Your task to perform on an android device: How much does a 3 bedroom apartment rent for in Miami? Image 0: 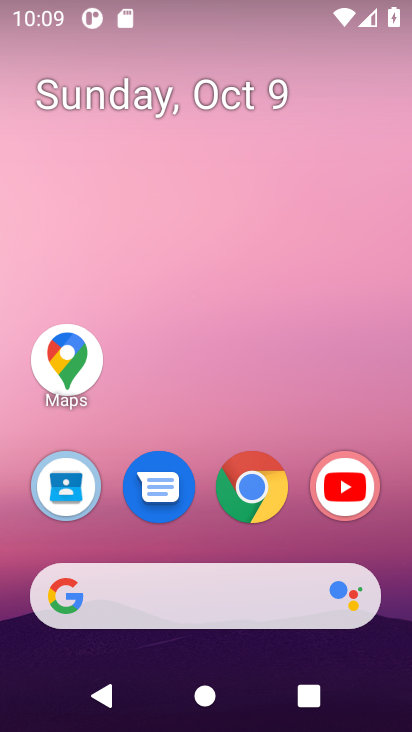
Step 0: click (248, 486)
Your task to perform on an android device: How much does a 3 bedroom apartment rent for in Miami? Image 1: 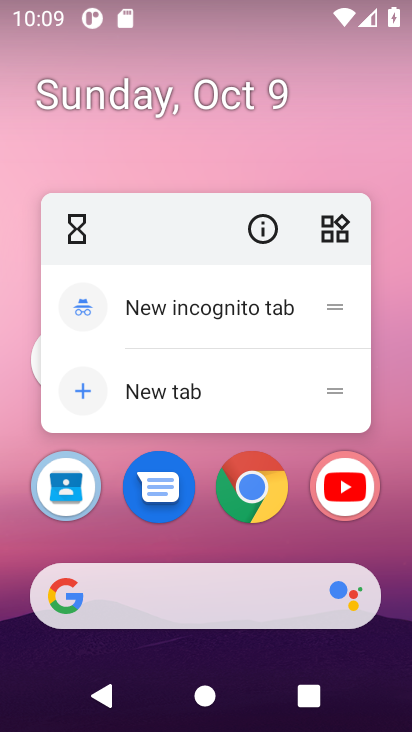
Step 1: click (266, 504)
Your task to perform on an android device: How much does a 3 bedroom apartment rent for in Miami? Image 2: 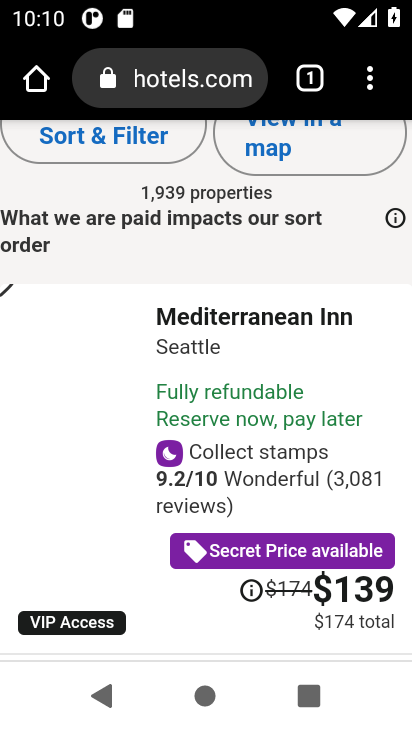
Step 2: drag from (262, 499) to (269, 225)
Your task to perform on an android device: How much does a 3 bedroom apartment rent for in Miami? Image 3: 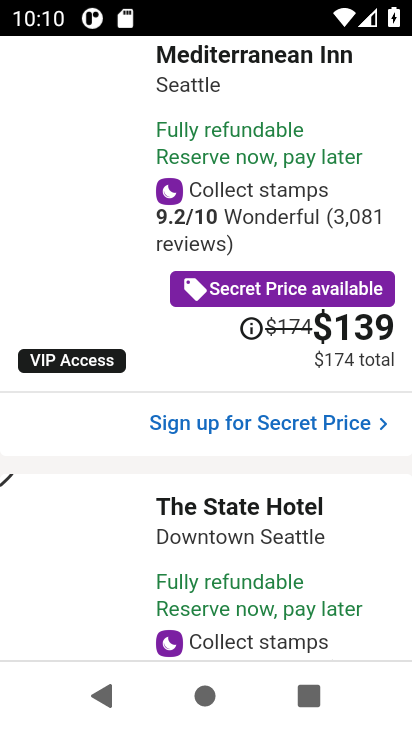
Step 3: drag from (241, 191) to (253, 453)
Your task to perform on an android device: How much does a 3 bedroom apartment rent for in Miami? Image 4: 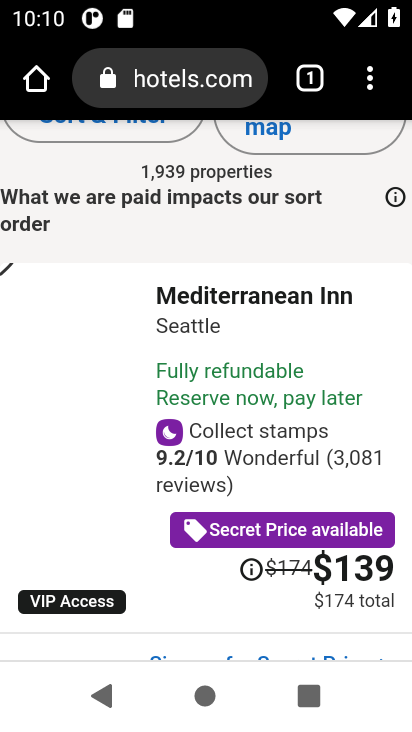
Step 4: click (182, 70)
Your task to perform on an android device: How much does a 3 bedroom apartment rent for in Miami? Image 5: 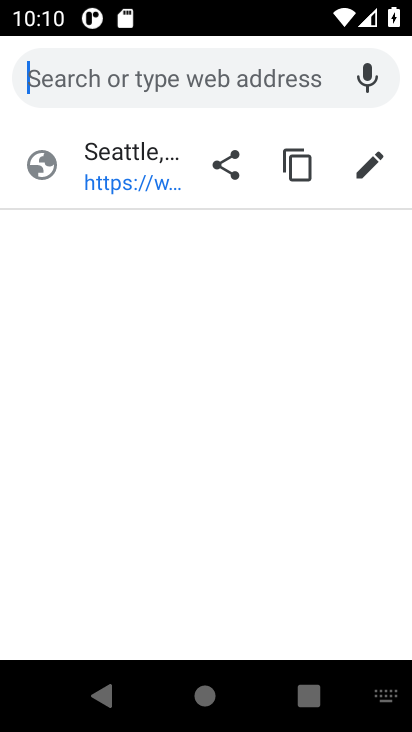
Step 5: type "3 bedroom apartment rent in miami"
Your task to perform on an android device: How much does a 3 bedroom apartment rent for in Miami? Image 6: 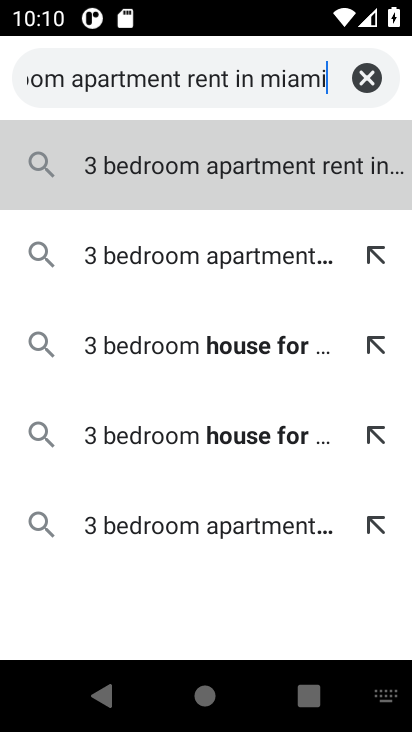
Step 6: type ""
Your task to perform on an android device: How much does a 3 bedroom apartment rent for in Miami? Image 7: 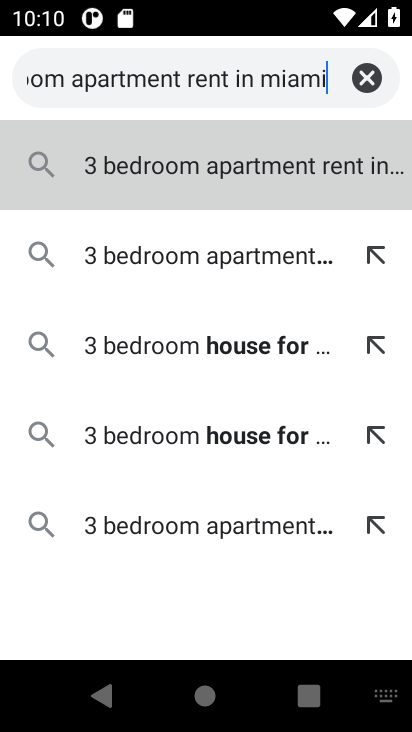
Step 7: press enter
Your task to perform on an android device: How much does a 3 bedroom apartment rent for in Miami? Image 8: 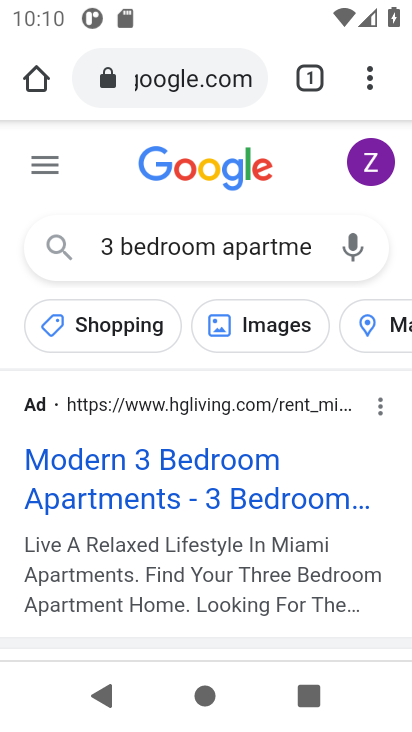
Step 8: drag from (179, 572) to (179, 219)
Your task to perform on an android device: How much does a 3 bedroom apartment rent for in Miami? Image 9: 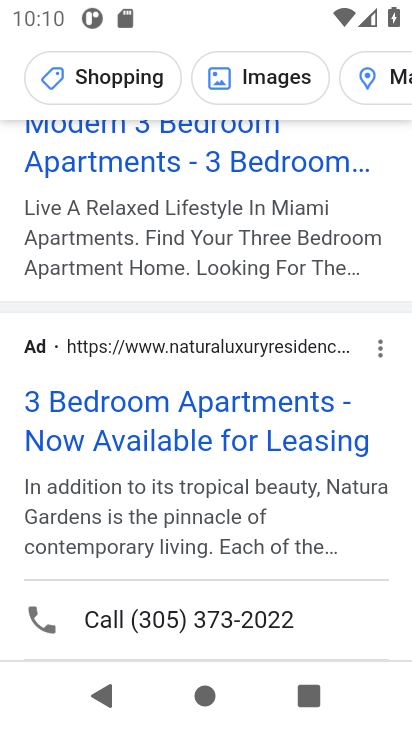
Step 9: drag from (220, 288) to (247, 220)
Your task to perform on an android device: How much does a 3 bedroom apartment rent for in Miami? Image 10: 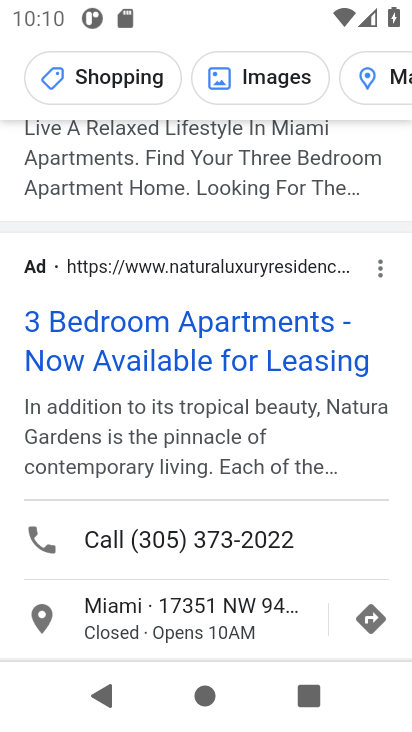
Step 10: drag from (211, 447) to (211, 233)
Your task to perform on an android device: How much does a 3 bedroom apartment rent for in Miami? Image 11: 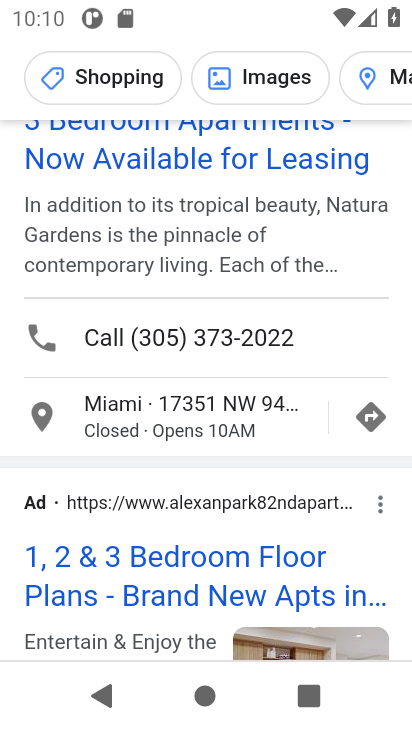
Step 11: drag from (206, 430) to (204, 253)
Your task to perform on an android device: How much does a 3 bedroom apartment rent for in Miami? Image 12: 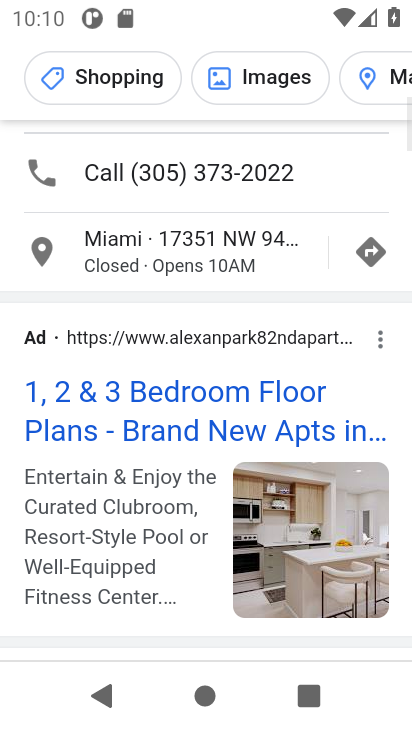
Step 12: drag from (199, 523) to (165, 207)
Your task to perform on an android device: How much does a 3 bedroom apartment rent for in Miami? Image 13: 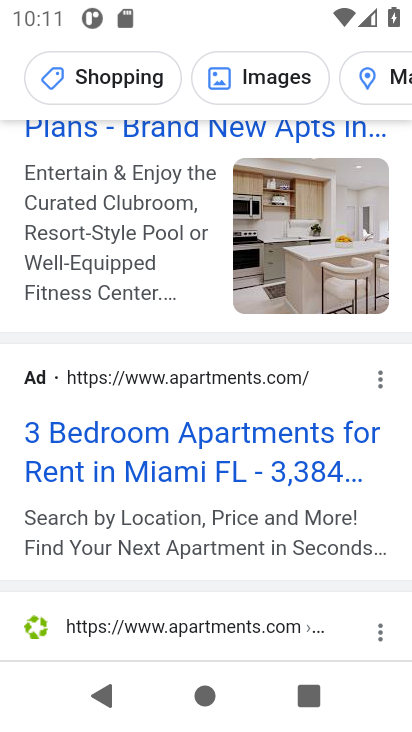
Step 13: click (168, 459)
Your task to perform on an android device: How much does a 3 bedroom apartment rent for in Miami? Image 14: 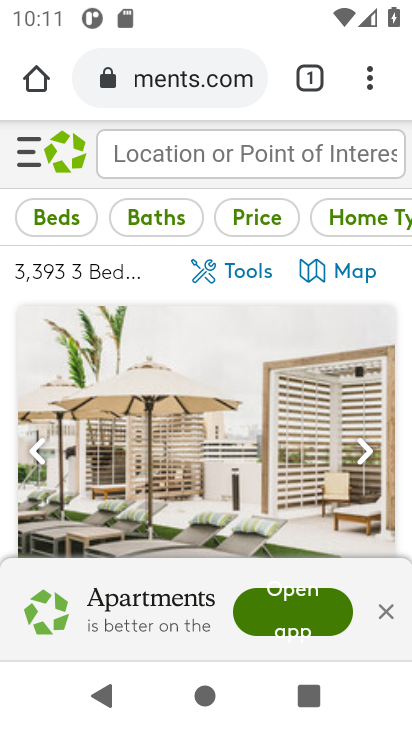
Step 14: task complete